Your task to perform on an android device: all mails in gmail Image 0: 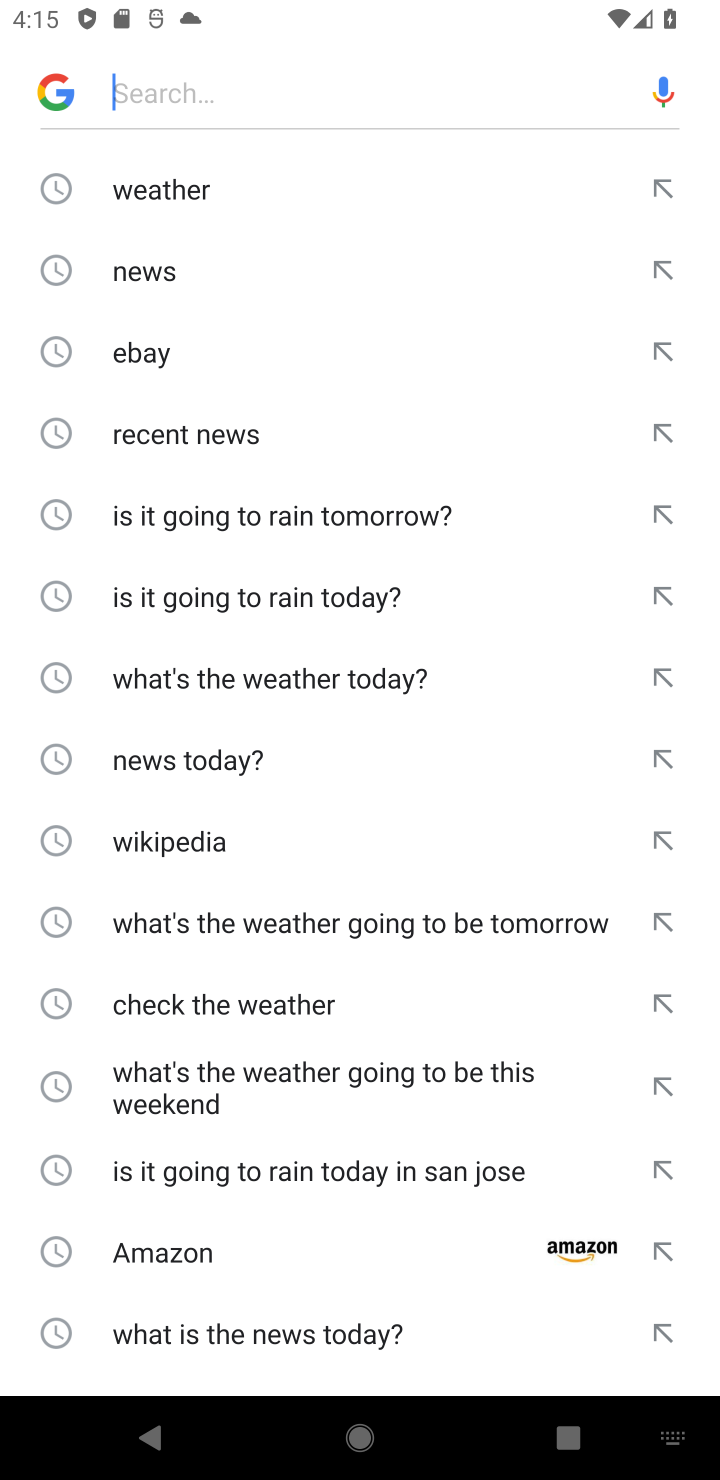
Step 0: press home button
Your task to perform on an android device: all mails in gmail Image 1: 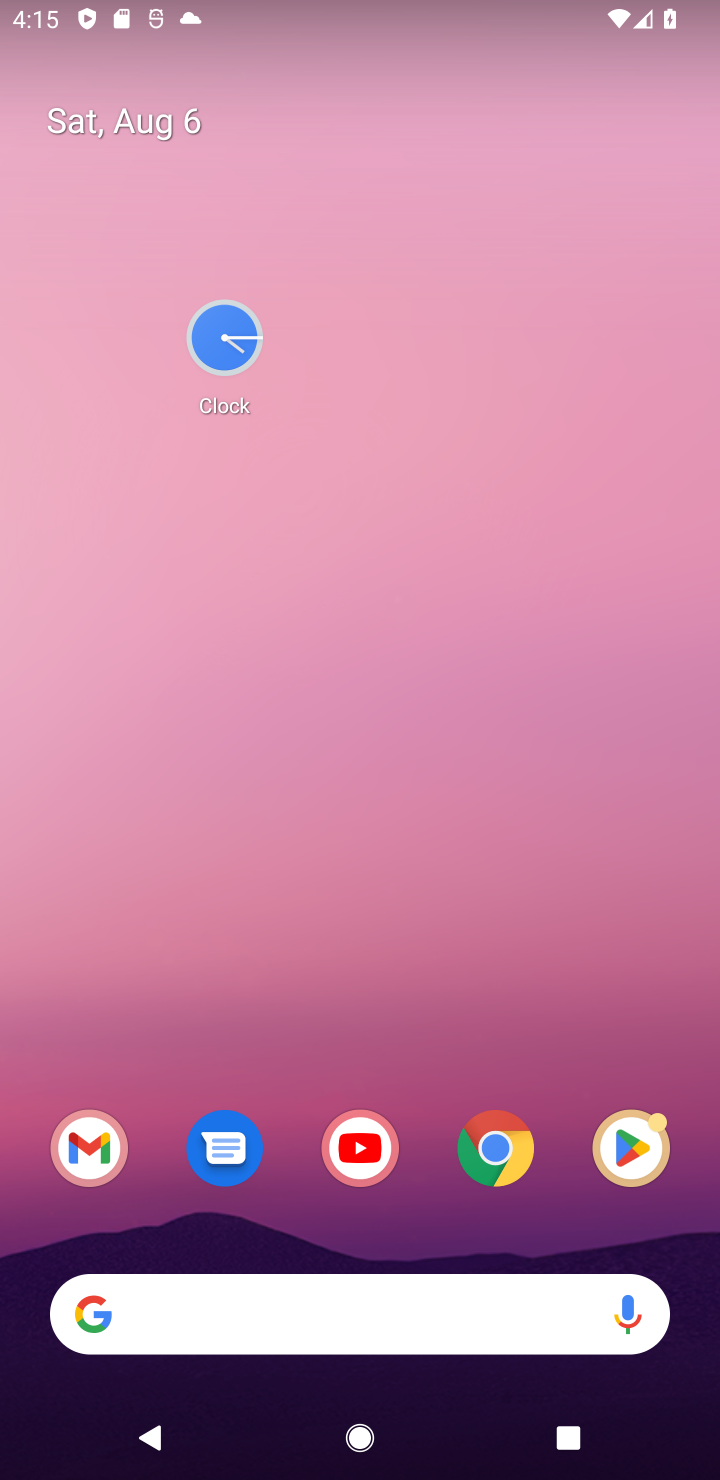
Step 1: drag from (303, 1266) to (430, 661)
Your task to perform on an android device: all mails in gmail Image 2: 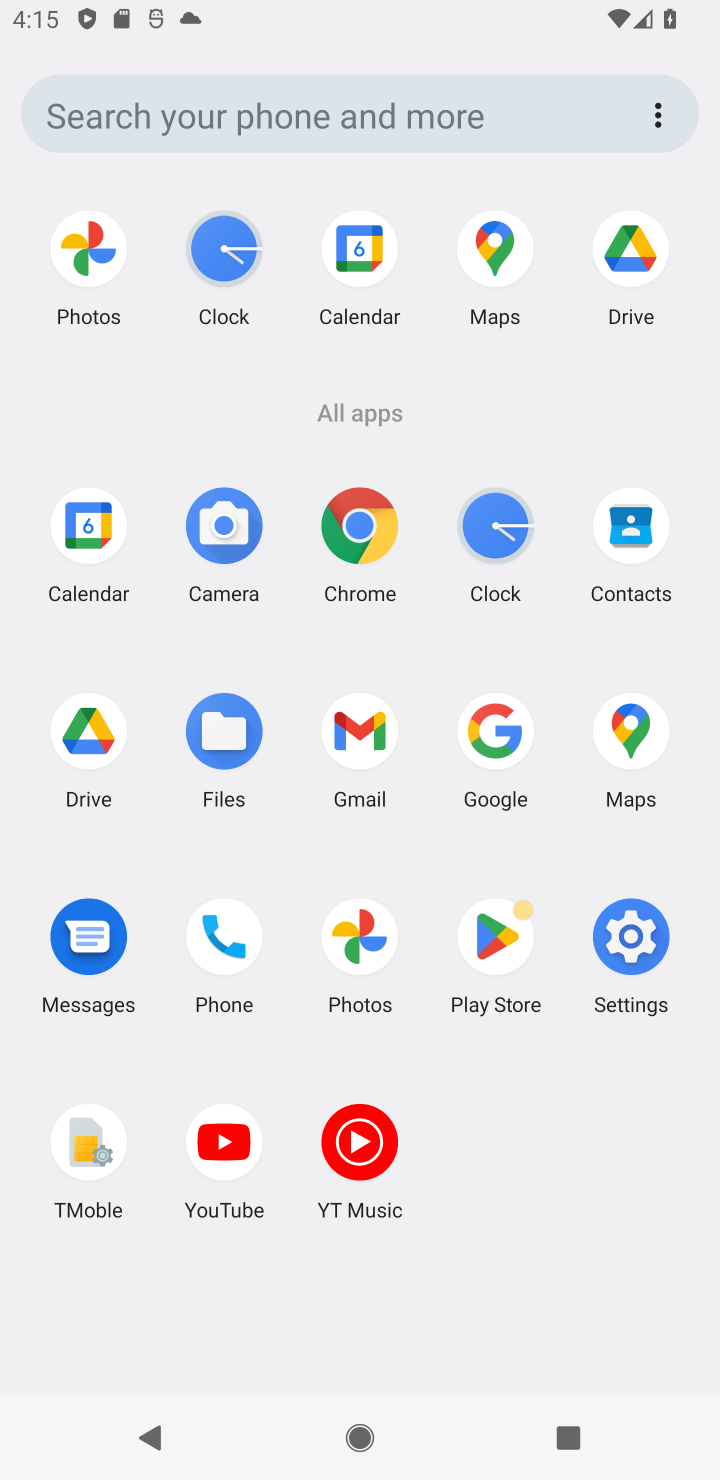
Step 2: click (351, 730)
Your task to perform on an android device: all mails in gmail Image 3: 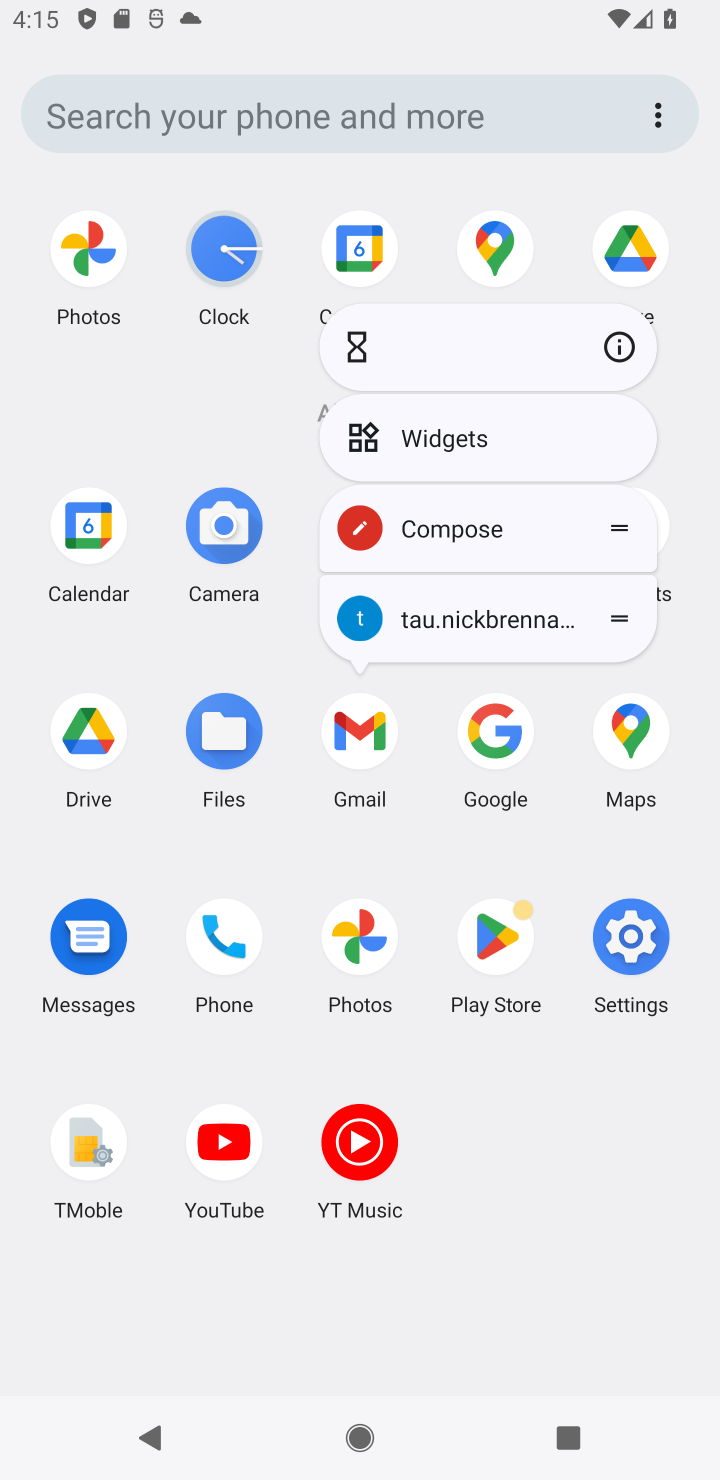
Step 3: click (606, 363)
Your task to perform on an android device: all mails in gmail Image 4: 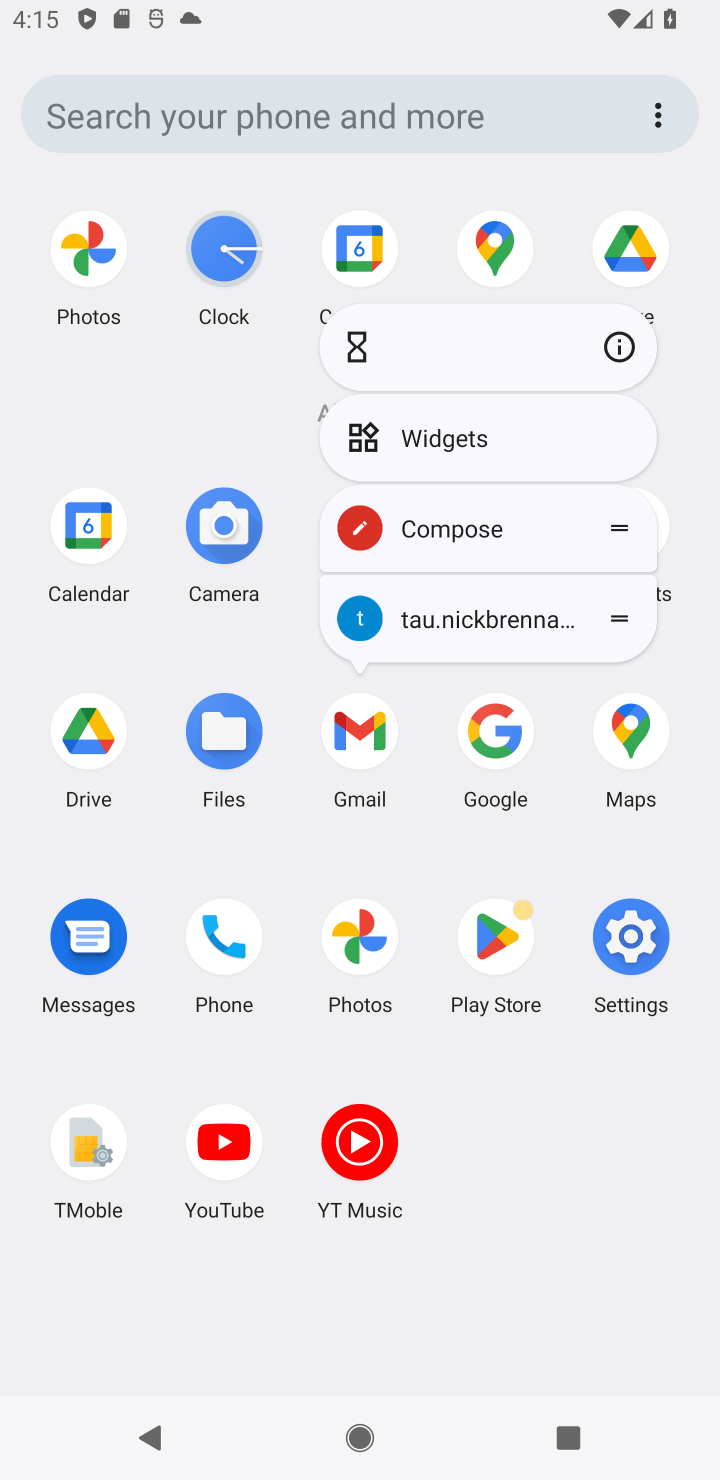
Step 4: click (628, 341)
Your task to perform on an android device: all mails in gmail Image 5: 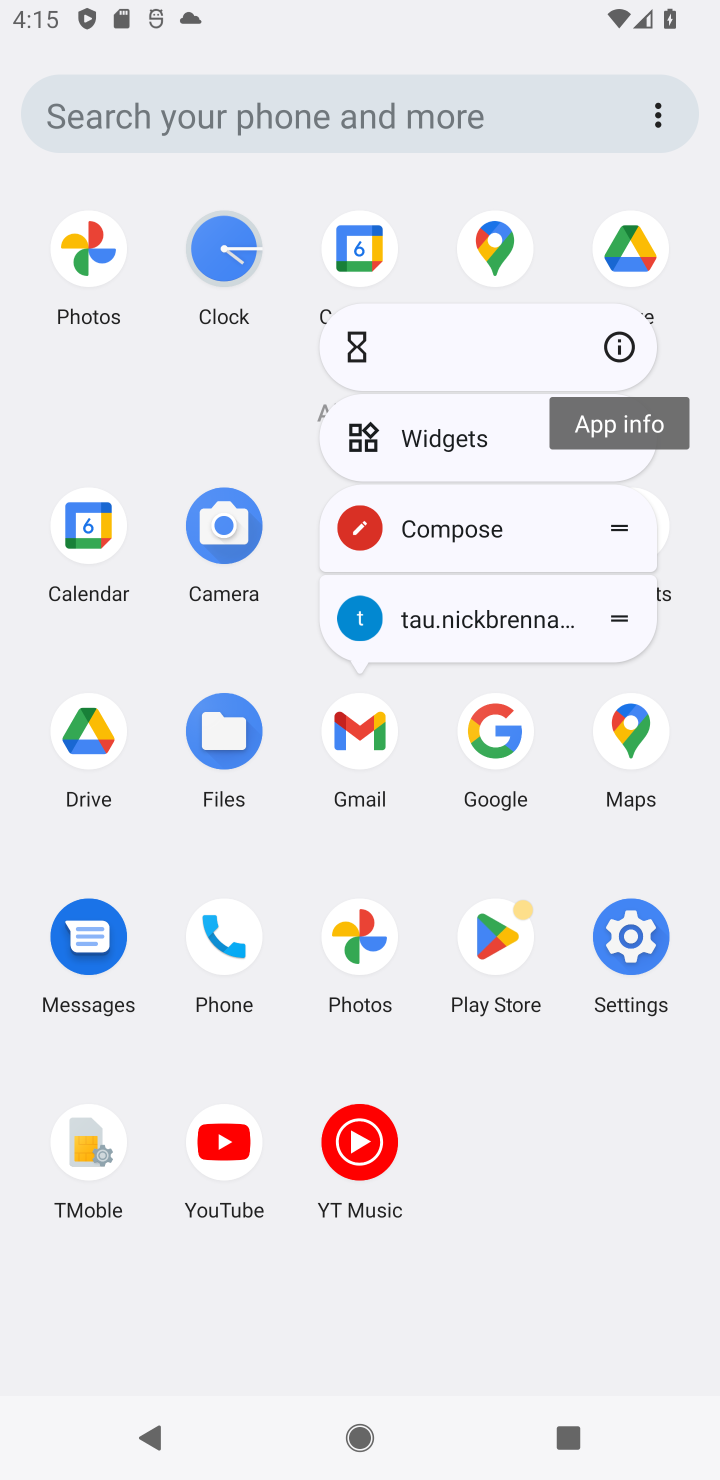
Step 5: click (628, 341)
Your task to perform on an android device: all mails in gmail Image 6: 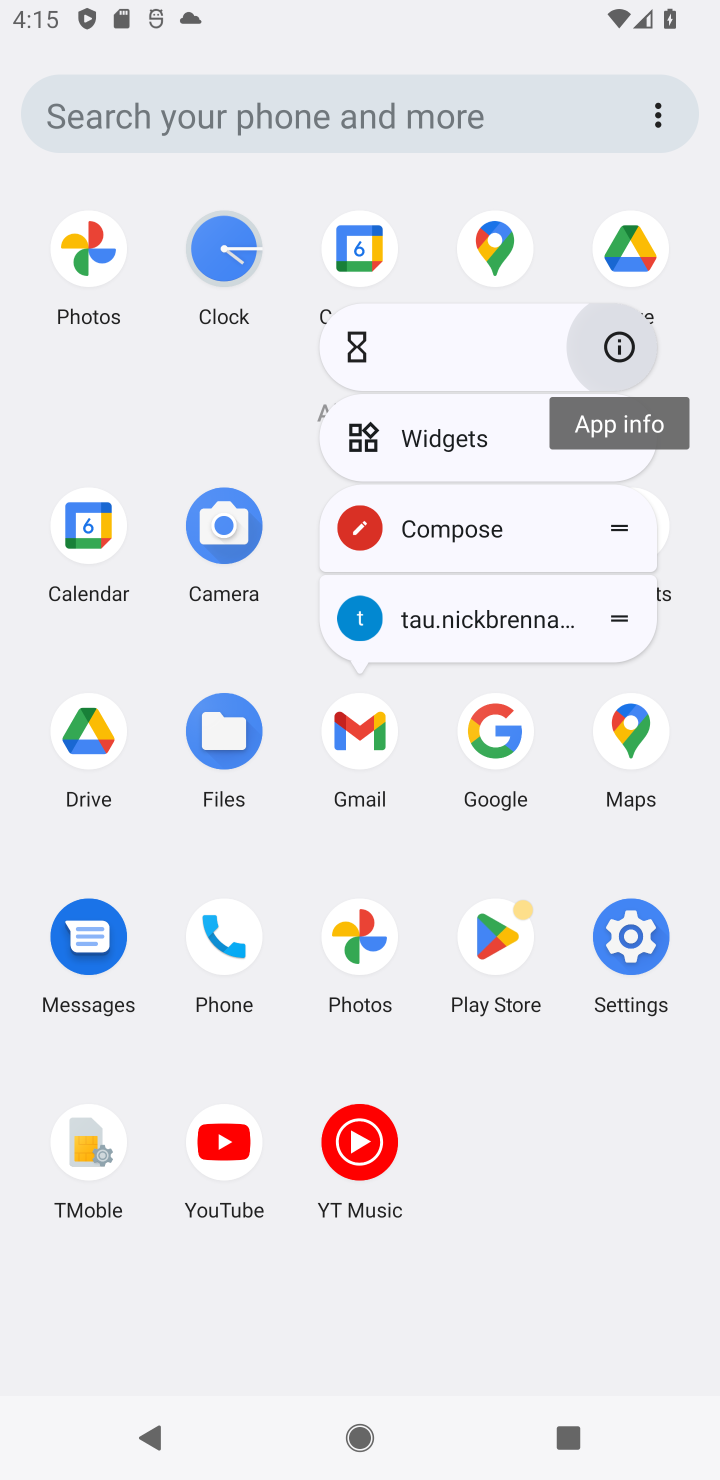
Step 6: click (628, 341)
Your task to perform on an android device: all mails in gmail Image 7: 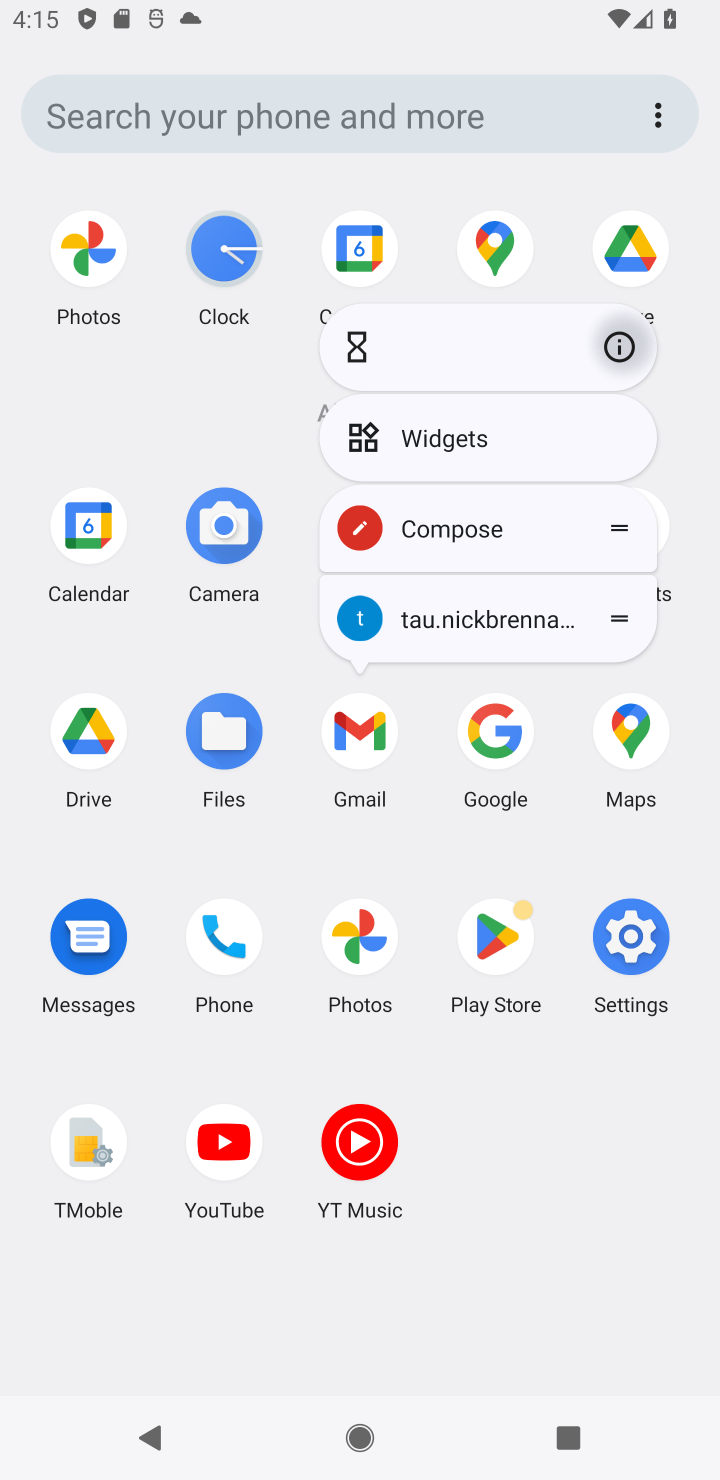
Step 7: click (626, 341)
Your task to perform on an android device: all mails in gmail Image 8: 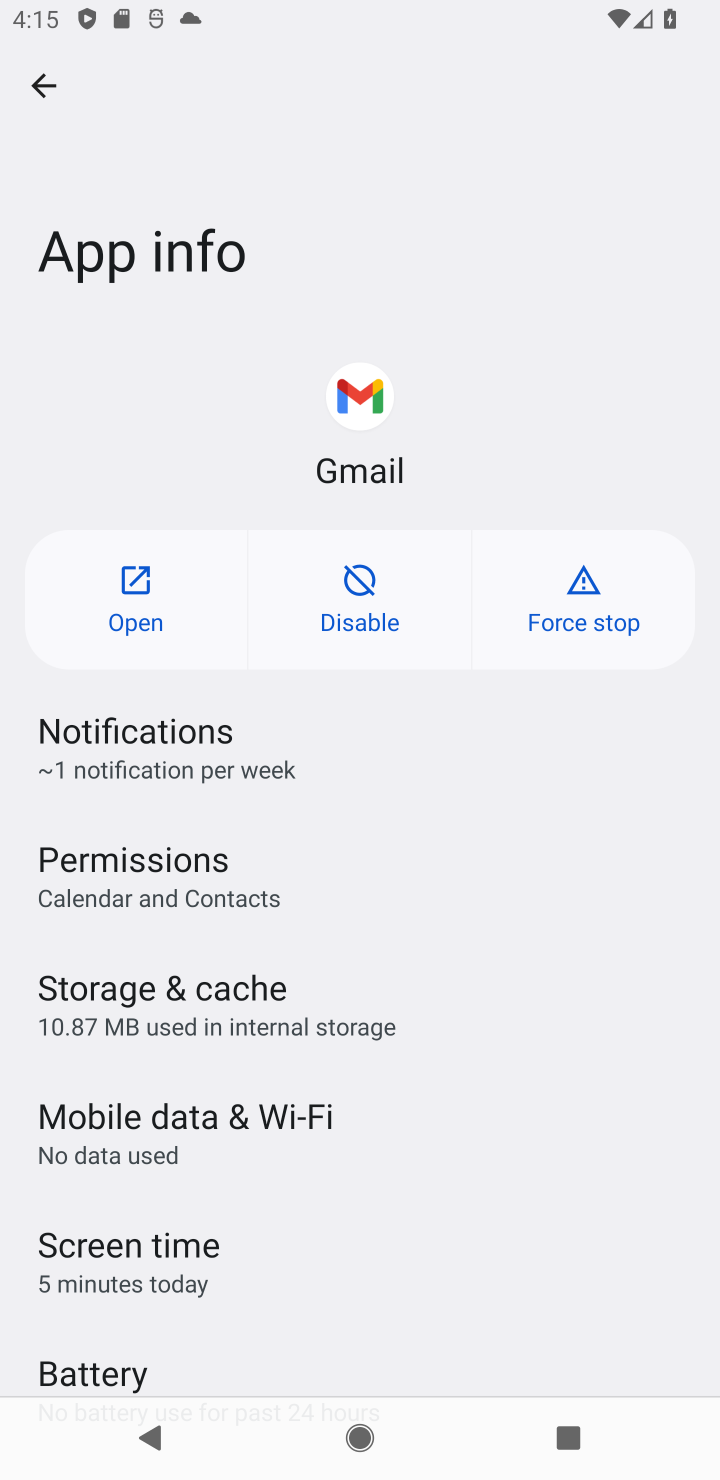
Step 8: click (159, 571)
Your task to perform on an android device: all mails in gmail Image 9: 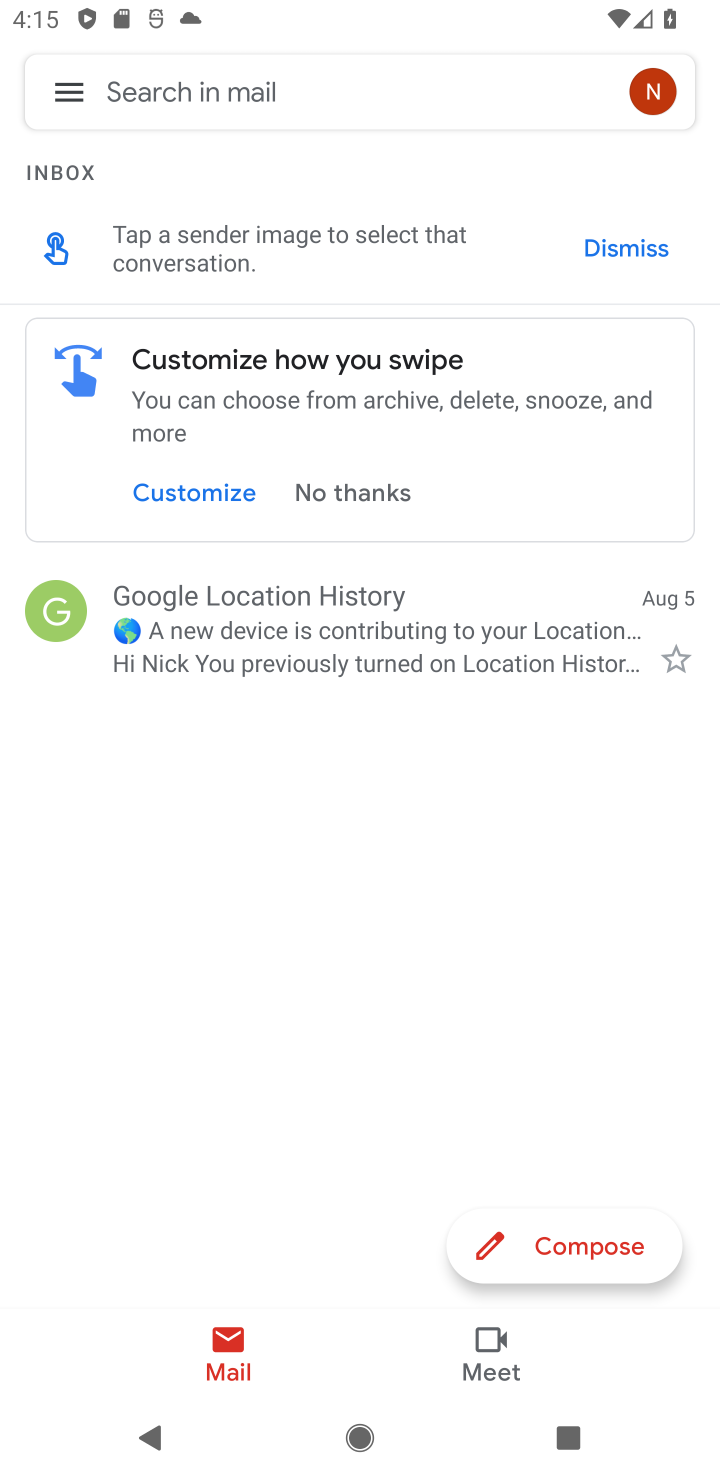
Step 9: drag from (330, 1075) to (403, 582)
Your task to perform on an android device: all mails in gmail Image 10: 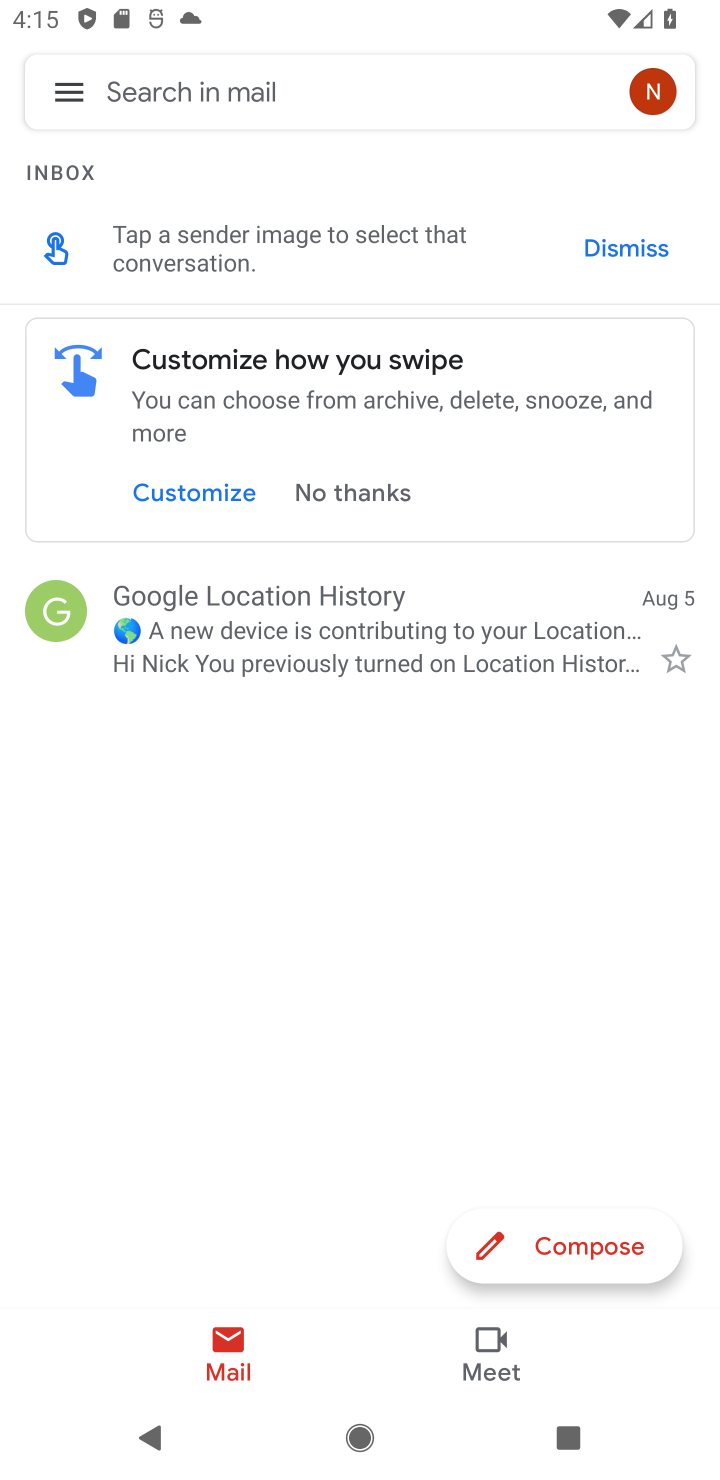
Step 10: click (53, 83)
Your task to perform on an android device: all mails in gmail Image 11: 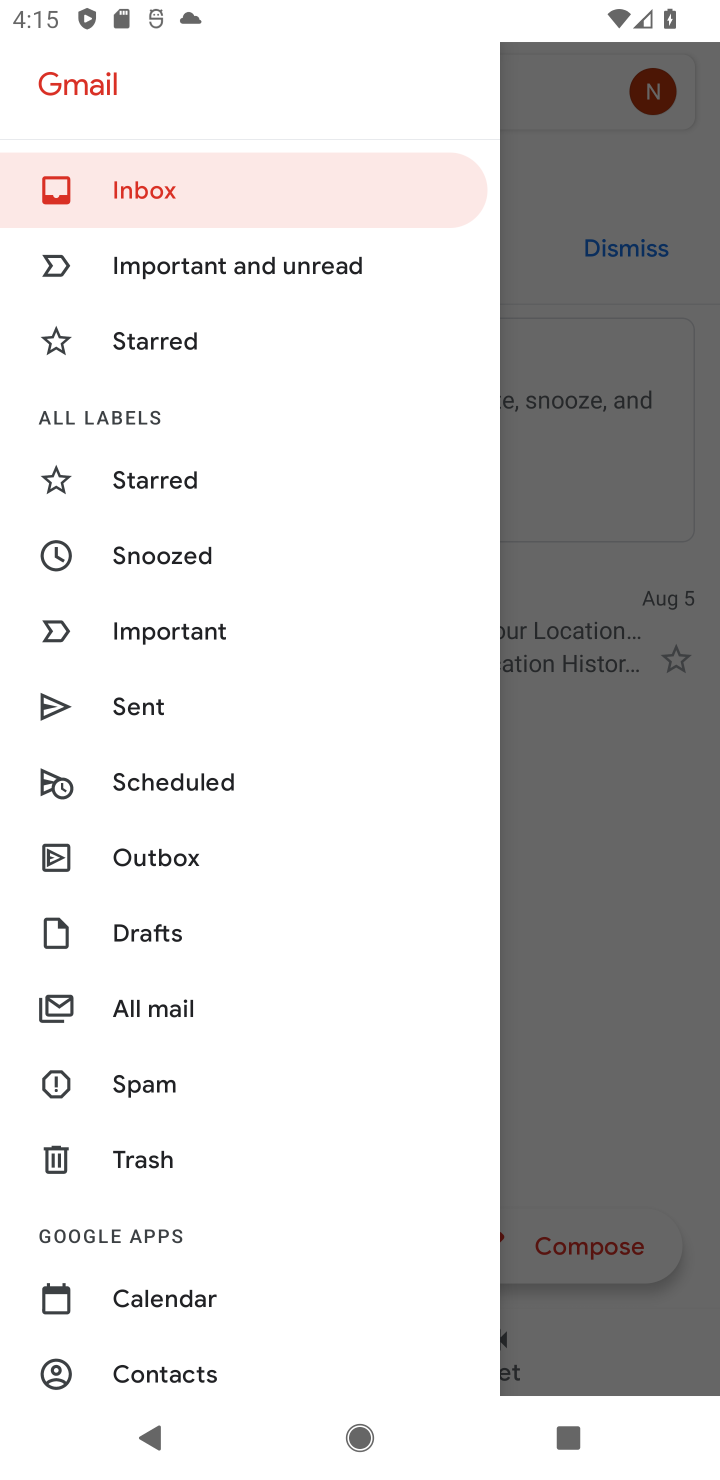
Step 11: click (143, 1014)
Your task to perform on an android device: all mails in gmail Image 12: 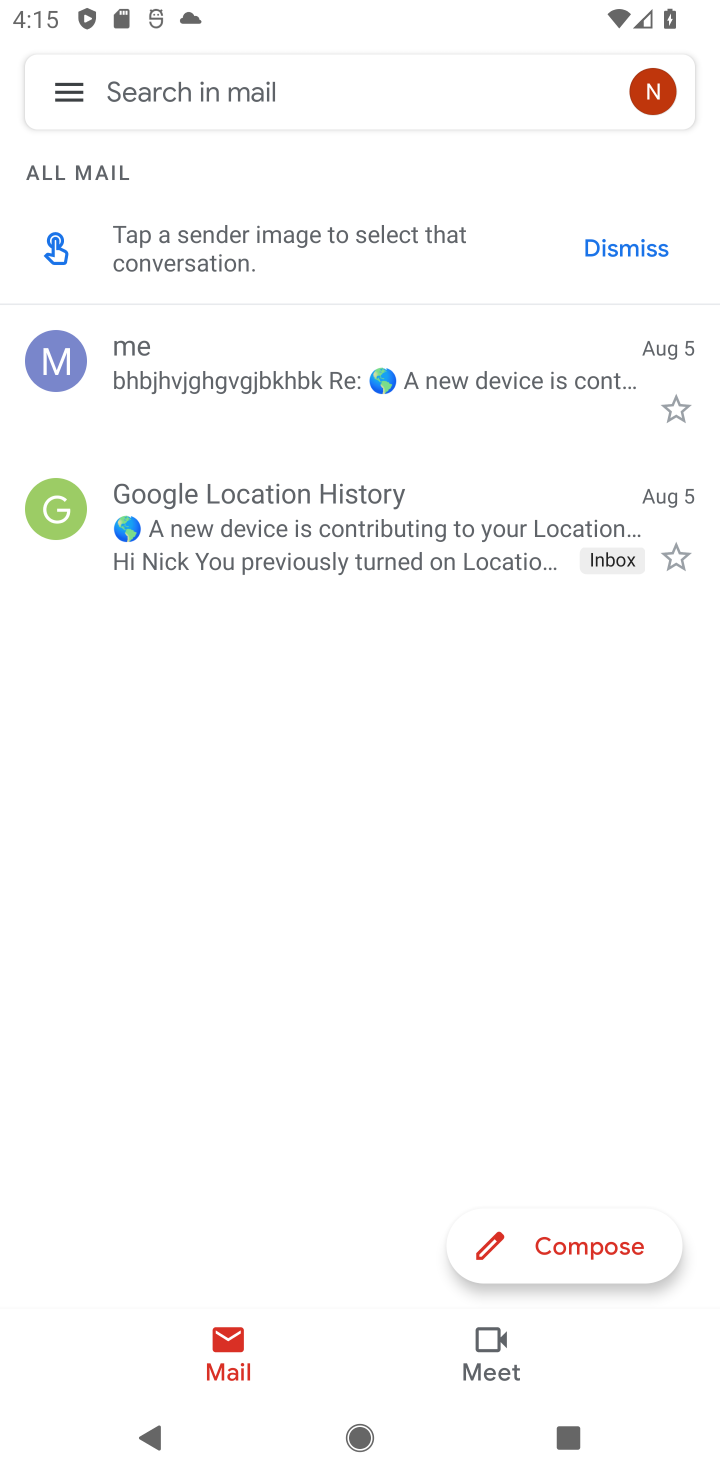
Step 12: task complete